Your task to perform on an android device: Open Chrome and go to settings Image 0: 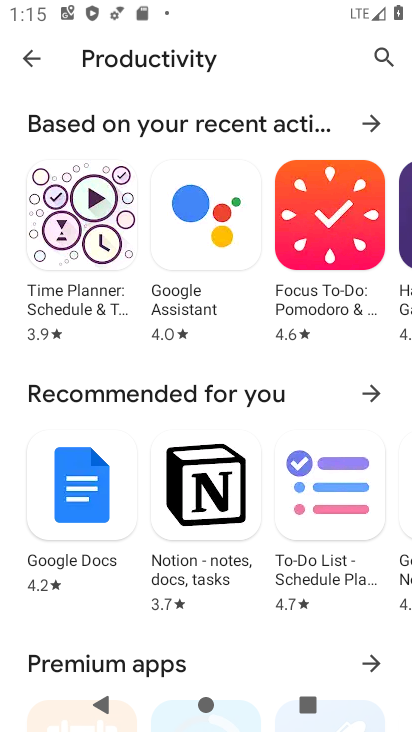
Step 0: press home button
Your task to perform on an android device: Open Chrome and go to settings Image 1: 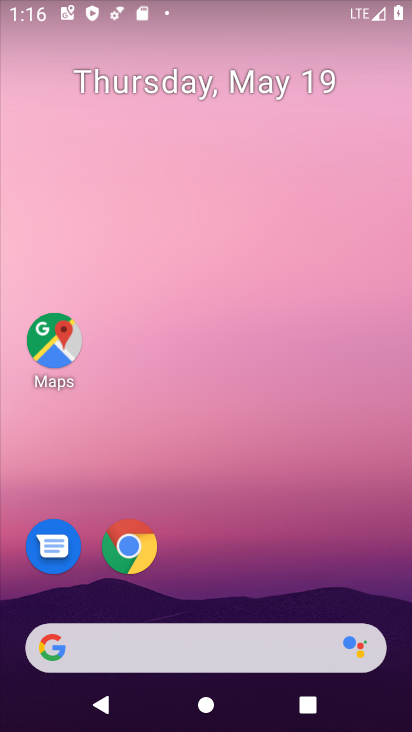
Step 1: click (131, 557)
Your task to perform on an android device: Open Chrome and go to settings Image 2: 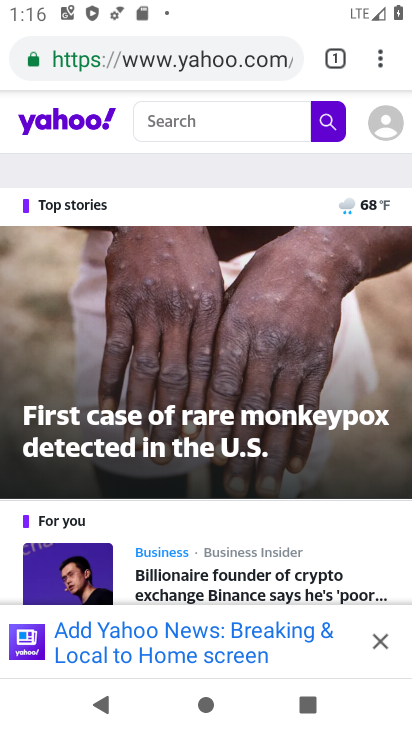
Step 2: click (393, 63)
Your task to perform on an android device: Open Chrome and go to settings Image 3: 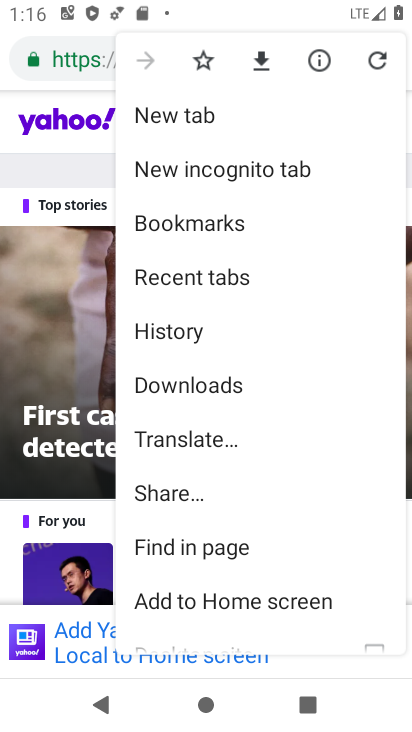
Step 3: drag from (209, 548) to (249, 159)
Your task to perform on an android device: Open Chrome and go to settings Image 4: 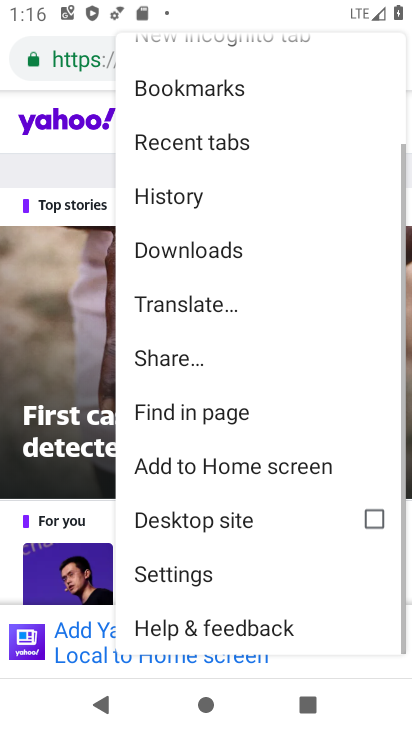
Step 4: click (198, 589)
Your task to perform on an android device: Open Chrome and go to settings Image 5: 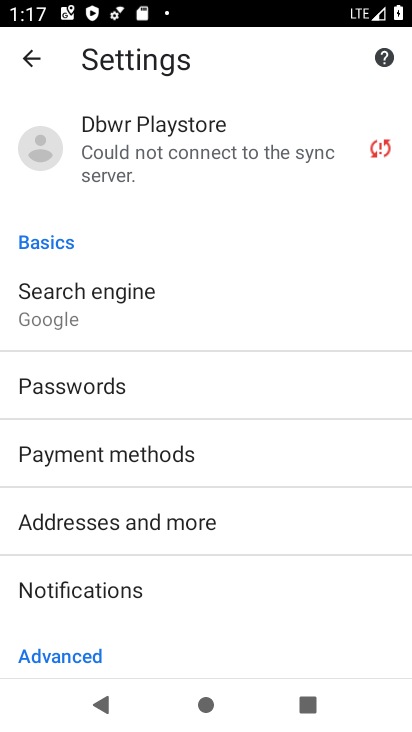
Step 5: task complete